Your task to perform on an android device: turn on showing notifications on the lock screen Image 0: 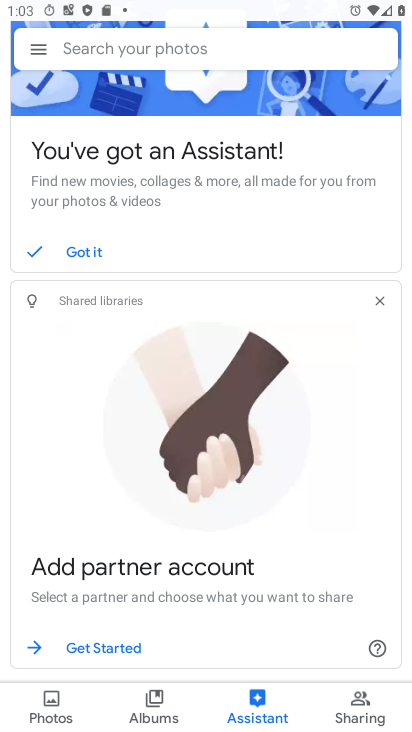
Step 0: press home button
Your task to perform on an android device: turn on showing notifications on the lock screen Image 1: 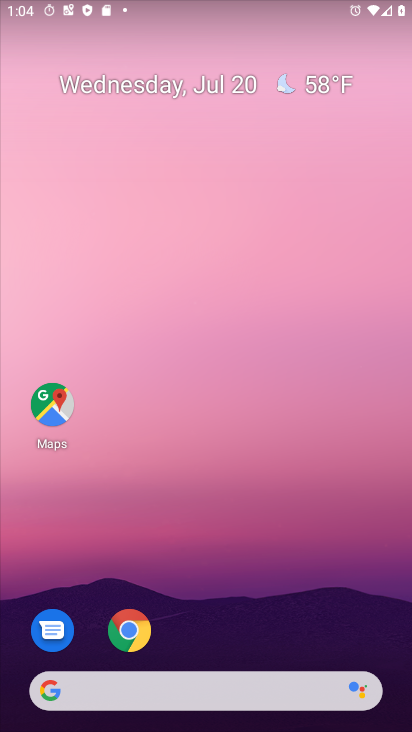
Step 1: drag from (193, 697) to (296, 135)
Your task to perform on an android device: turn on showing notifications on the lock screen Image 2: 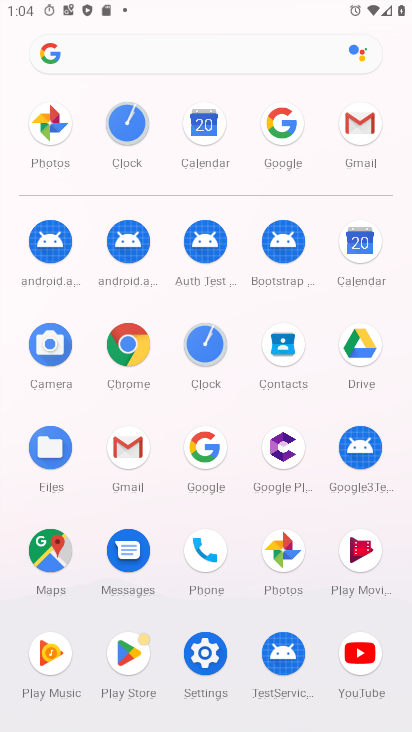
Step 2: click (202, 642)
Your task to perform on an android device: turn on showing notifications on the lock screen Image 3: 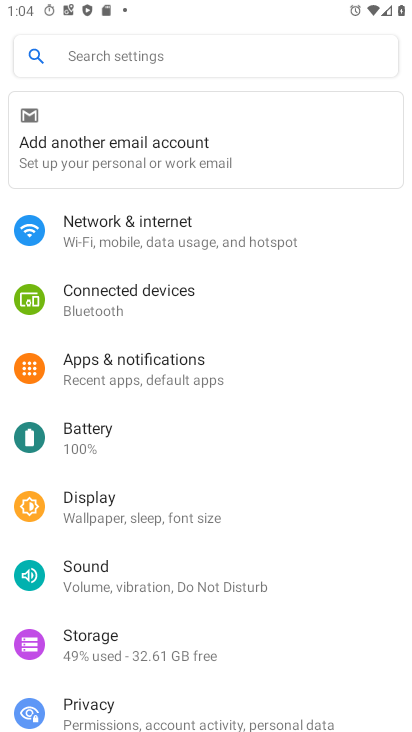
Step 3: click (170, 374)
Your task to perform on an android device: turn on showing notifications on the lock screen Image 4: 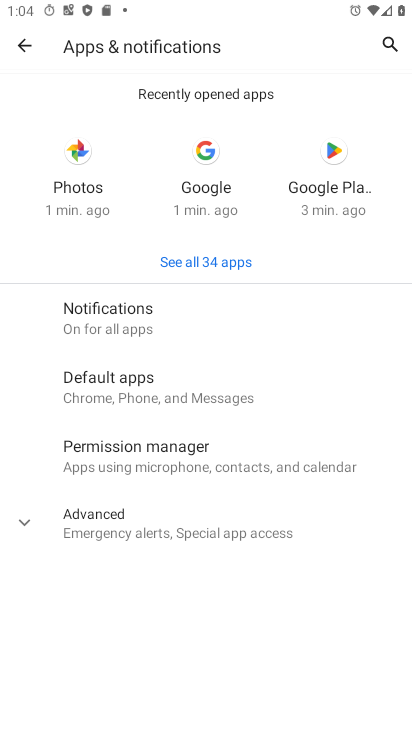
Step 4: click (132, 323)
Your task to perform on an android device: turn on showing notifications on the lock screen Image 5: 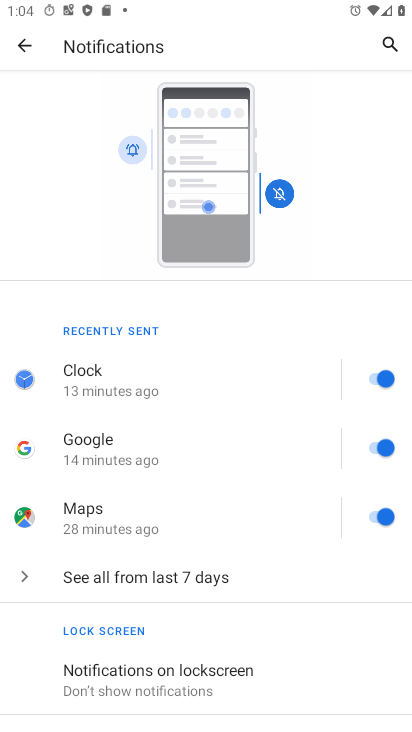
Step 5: drag from (229, 639) to (309, 246)
Your task to perform on an android device: turn on showing notifications on the lock screen Image 6: 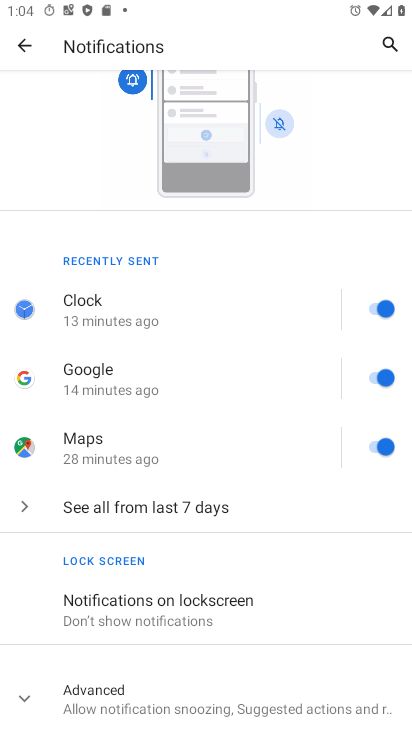
Step 6: click (180, 604)
Your task to perform on an android device: turn on showing notifications on the lock screen Image 7: 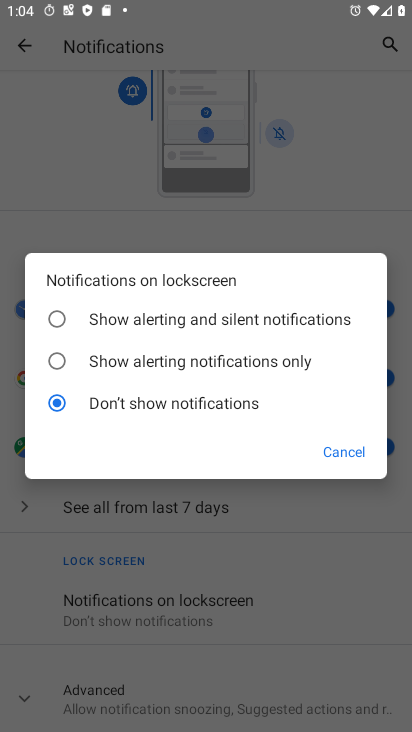
Step 7: click (57, 315)
Your task to perform on an android device: turn on showing notifications on the lock screen Image 8: 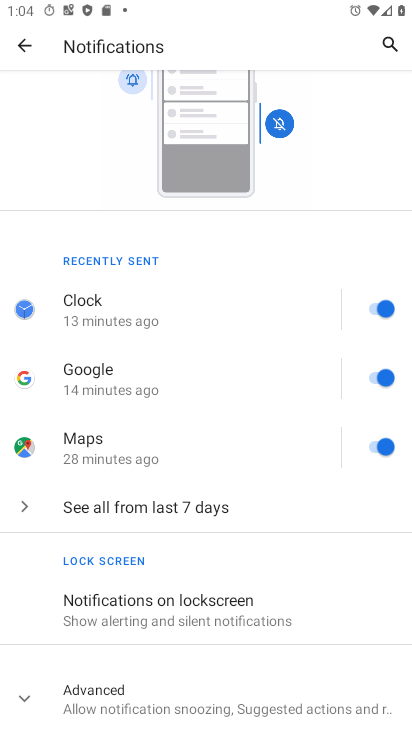
Step 8: task complete